Your task to perform on an android device: Show me recent news Image 0: 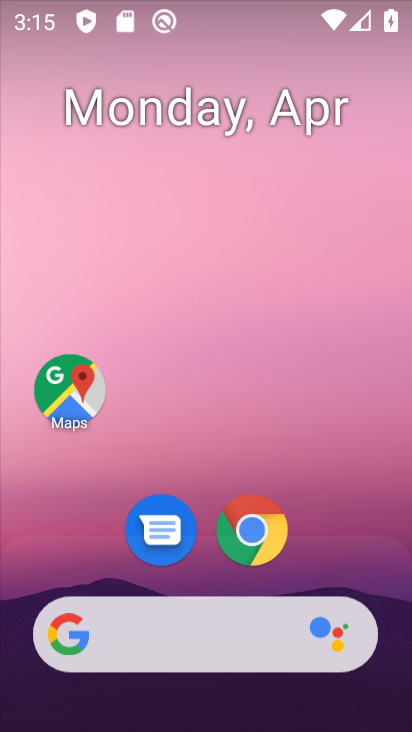
Step 0: drag from (219, 514) to (339, 81)
Your task to perform on an android device: Show me recent news Image 1: 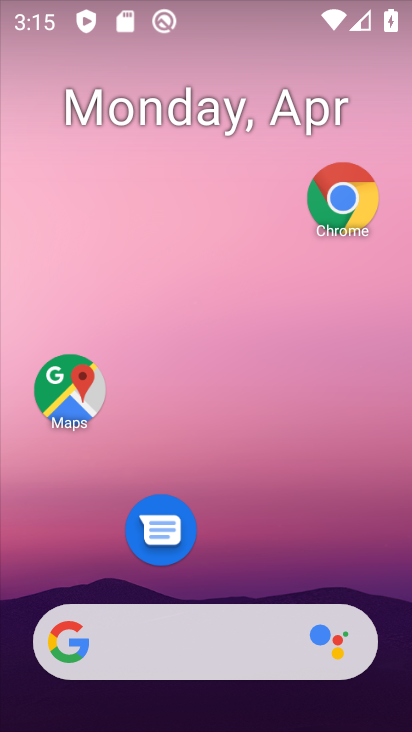
Step 1: task complete